Your task to perform on an android device: What's on my calendar today? Image 0: 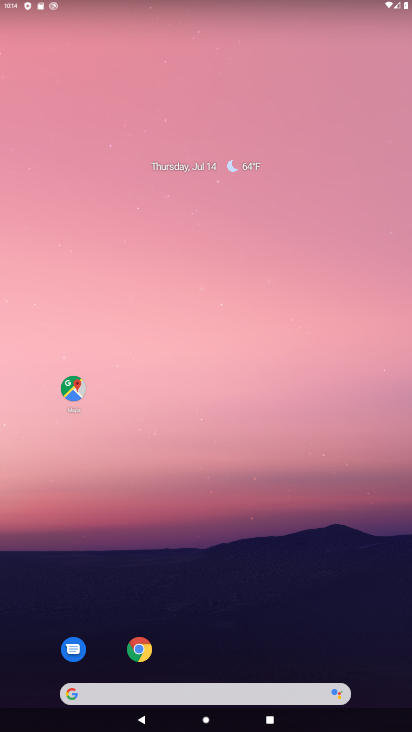
Step 0: drag from (196, 648) to (258, 77)
Your task to perform on an android device: What's on my calendar today? Image 1: 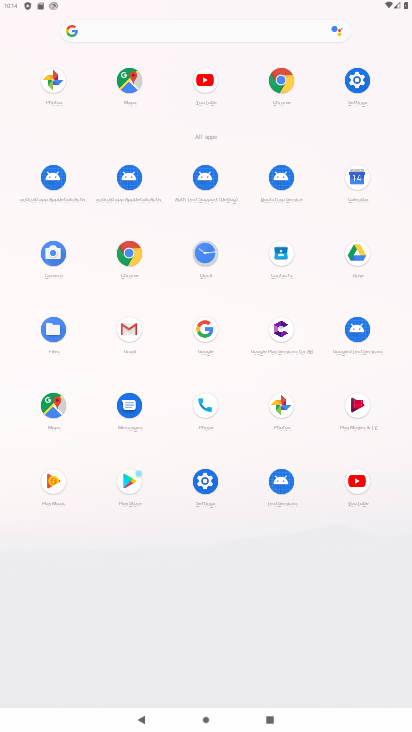
Step 1: click (357, 171)
Your task to perform on an android device: What's on my calendar today? Image 2: 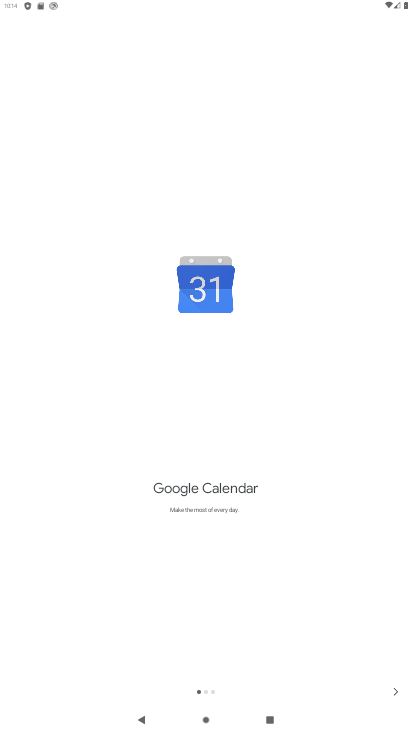
Step 2: click (399, 682)
Your task to perform on an android device: What's on my calendar today? Image 3: 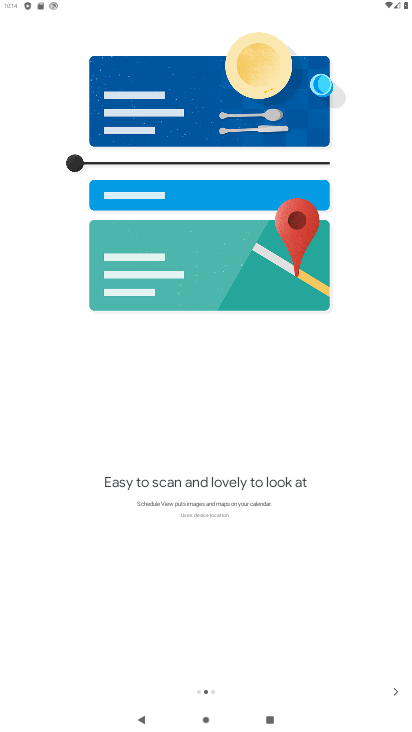
Step 3: click (394, 684)
Your task to perform on an android device: What's on my calendar today? Image 4: 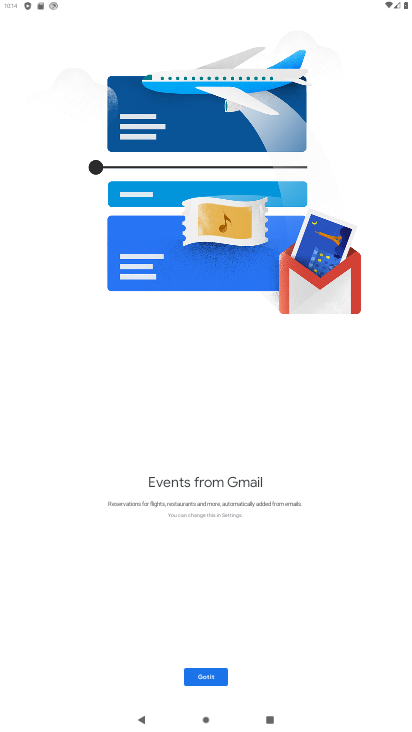
Step 4: click (199, 677)
Your task to perform on an android device: What's on my calendar today? Image 5: 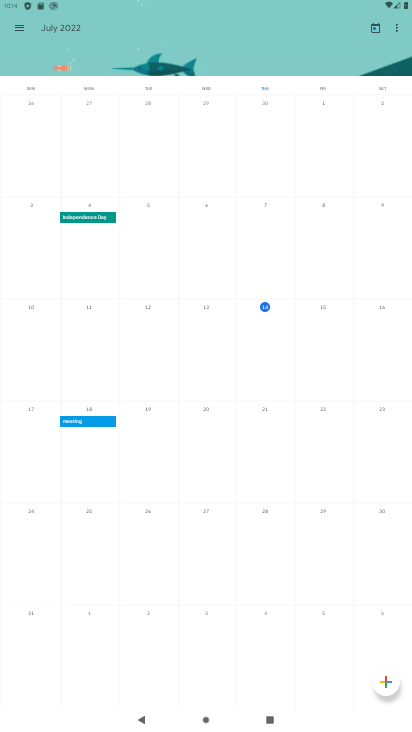
Step 5: click (327, 306)
Your task to perform on an android device: What's on my calendar today? Image 6: 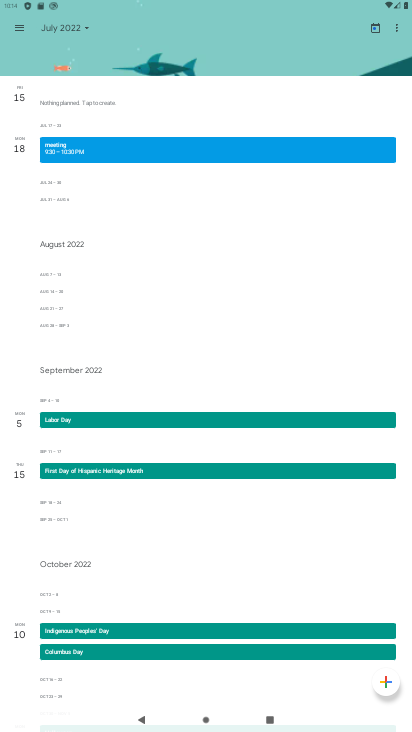
Step 6: task complete